Your task to perform on an android device: change the clock display to digital Image 0: 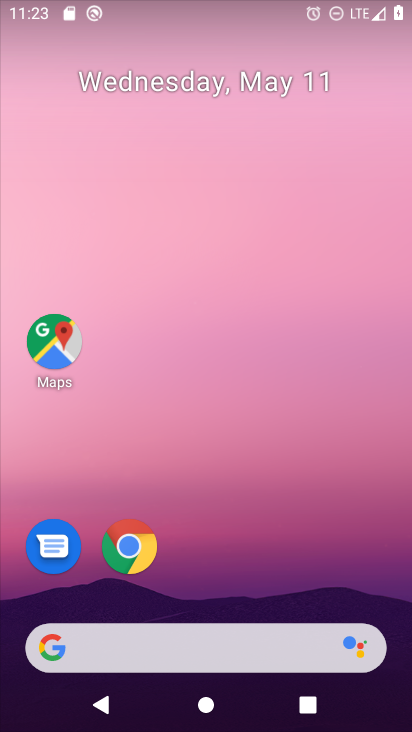
Step 0: drag from (392, 595) to (349, 102)
Your task to perform on an android device: change the clock display to digital Image 1: 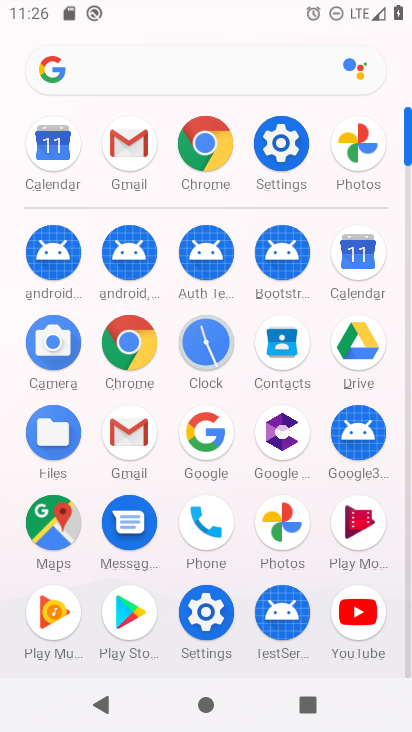
Step 1: click (211, 366)
Your task to perform on an android device: change the clock display to digital Image 2: 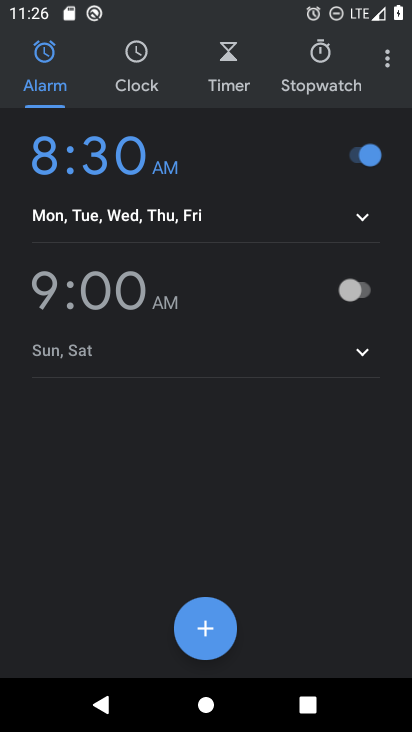
Step 2: click (386, 58)
Your task to perform on an android device: change the clock display to digital Image 3: 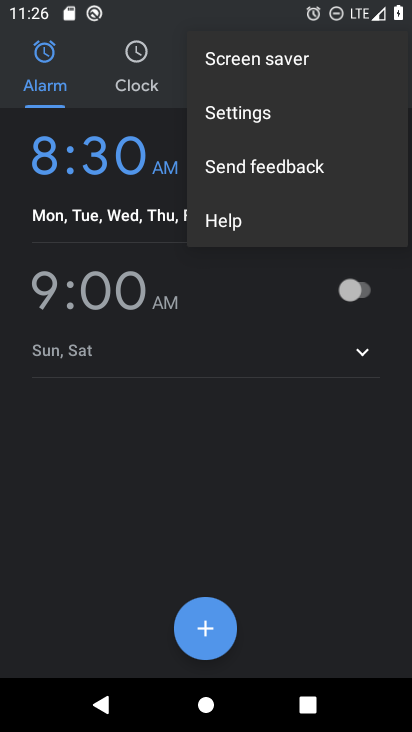
Step 3: click (298, 113)
Your task to perform on an android device: change the clock display to digital Image 4: 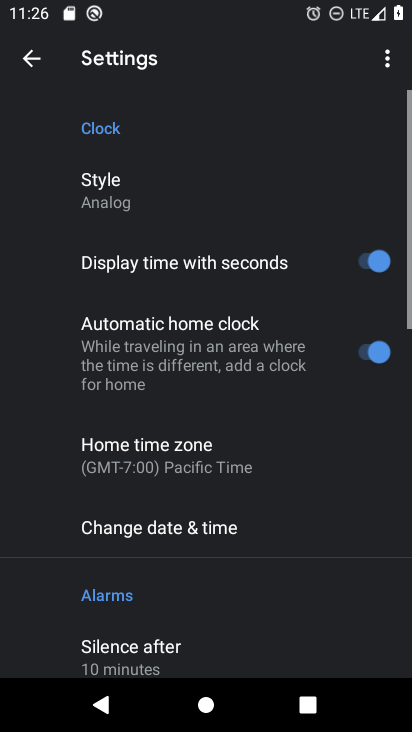
Step 4: click (193, 200)
Your task to perform on an android device: change the clock display to digital Image 5: 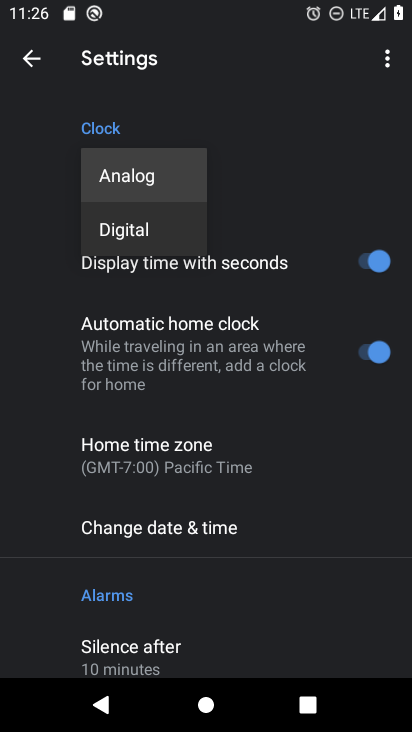
Step 5: click (134, 230)
Your task to perform on an android device: change the clock display to digital Image 6: 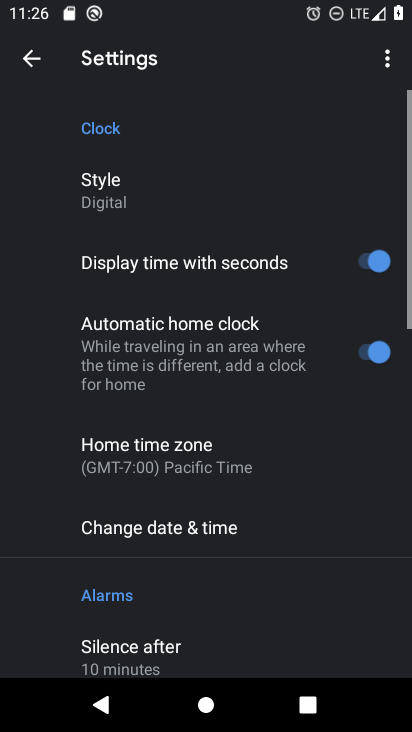
Step 6: task complete